Your task to perform on an android device: empty trash in the gmail app Image 0: 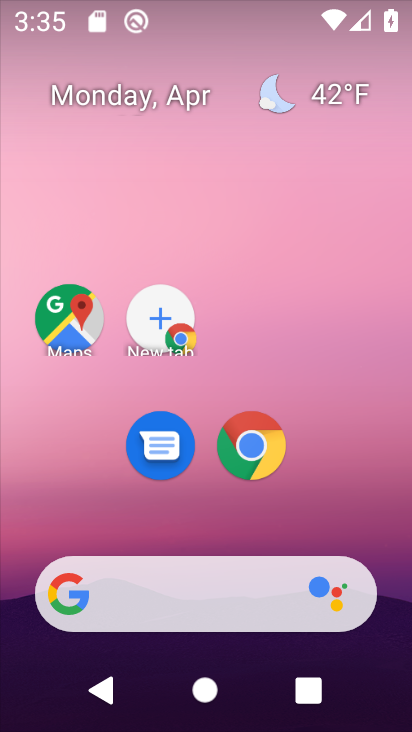
Step 0: press home button
Your task to perform on an android device: empty trash in the gmail app Image 1: 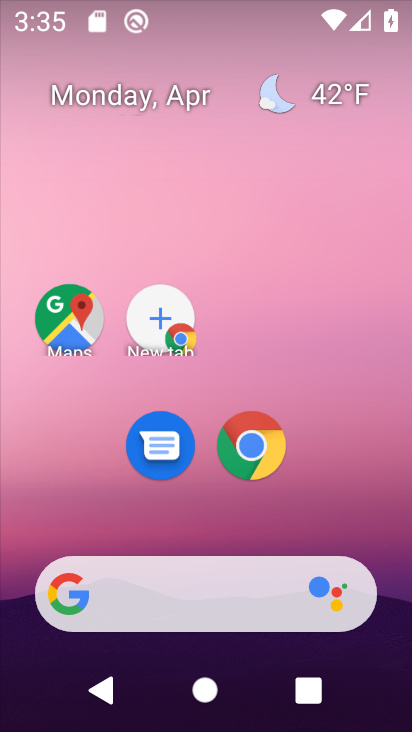
Step 1: drag from (205, 521) to (242, 71)
Your task to perform on an android device: empty trash in the gmail app Image 2: 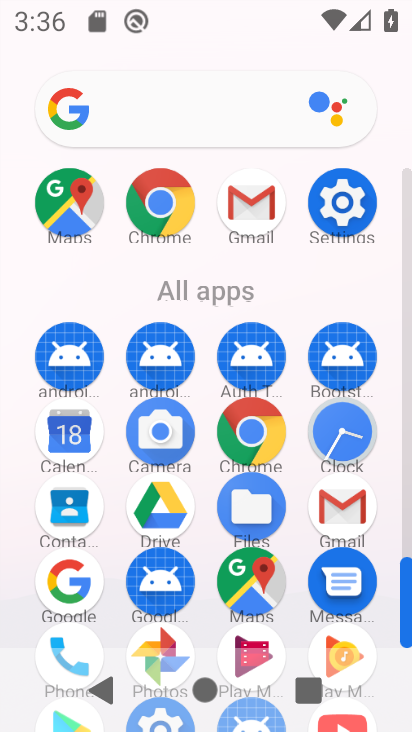
Step 2: click (335, 487)
Your task to perform on an android device: empty trash in the gmail app Image 3: 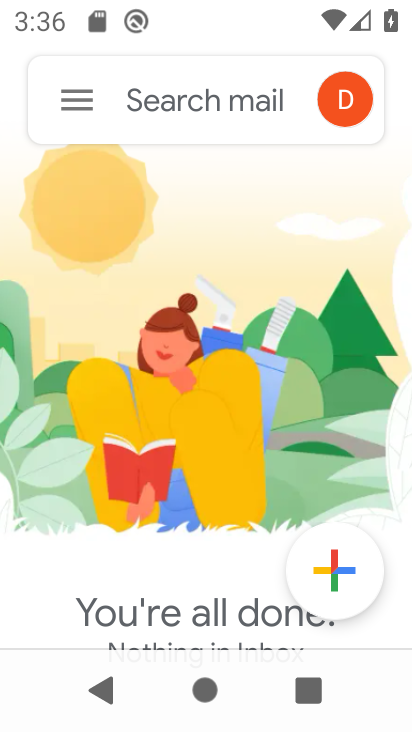
Step 3: click (74, 92)
Your task to perform on an android device: empty trash in the gmail app Image 4: 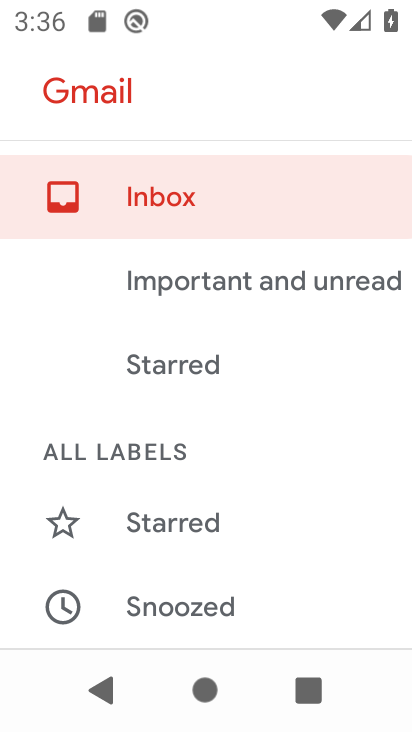
Step 4: drag from (235, 577) to (221, 96)
Your task to perform on an android device: empty trash in the gmail app Image 5: 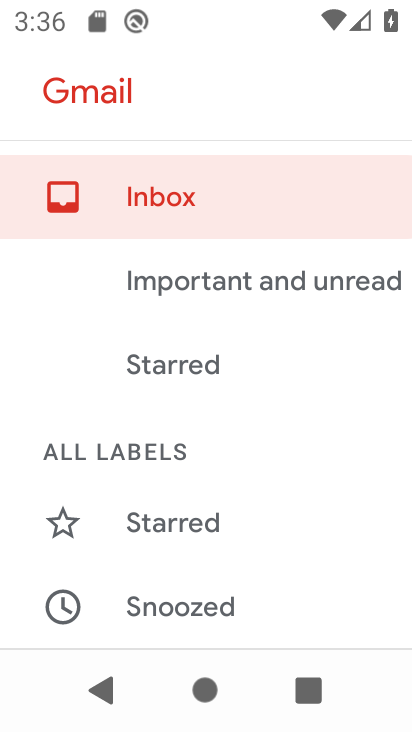
Step 5: drag from (246, 613) to (259, 94)
Your task to perform on an android device: empty trash in the gmail app Image 6: 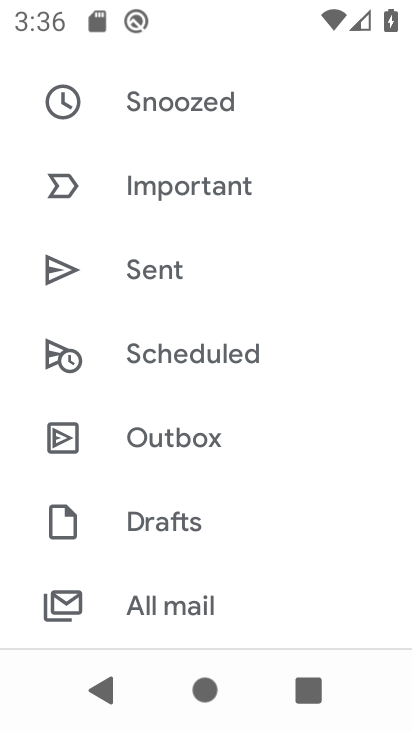
Step 6: drag from (170, 573) to (189, 120)
Your task to perform on an android device: empty trash in the gmail app Image 7: 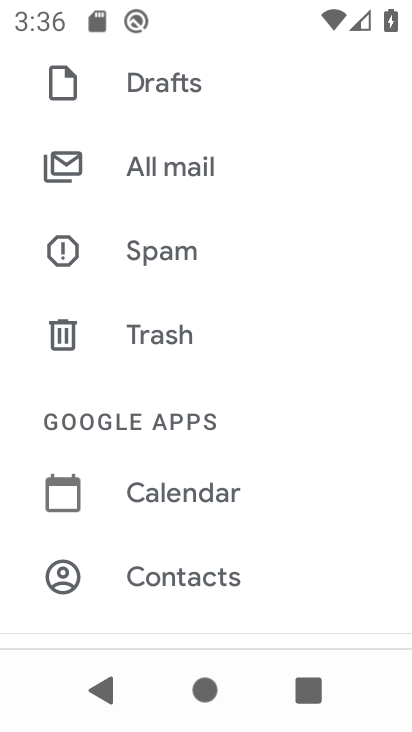
Step 7: click (108, 330)
Your task to perform on an android device: empty trash in the gmail app Image 8: 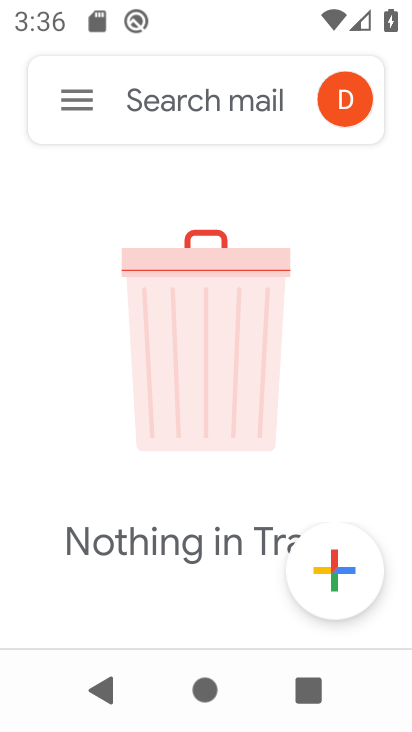
Step 8: task complete